Your task to perform on an android device: Go to wifi settings Image 0: 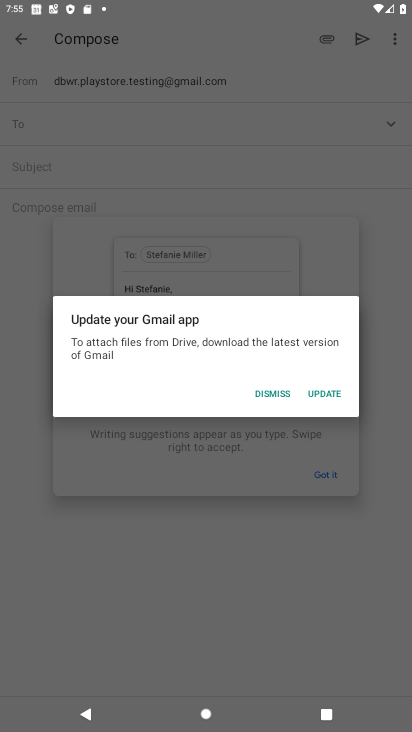
Step 0: press home button
Your task to perform on an android device: Go to wifi settings Image 1: 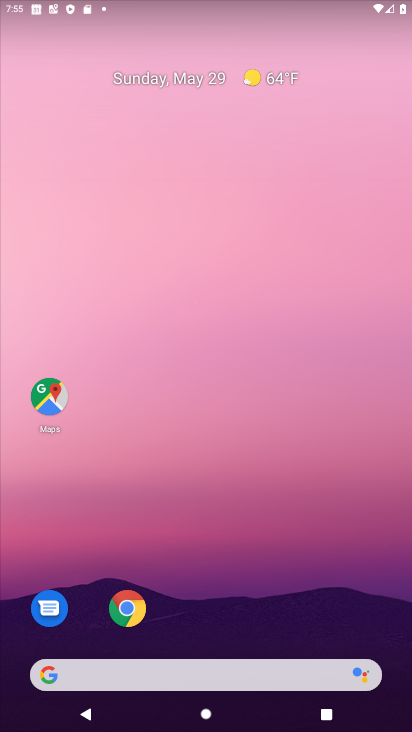
Step 1: drag from (257, 519) to (234, 135)
Your task to perform on an android device: Go to wifi settings Image 2: 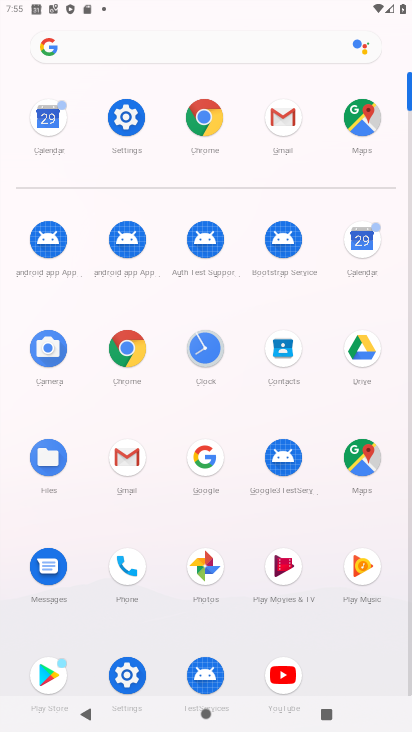
Step 2: click (234, 135)
Your task to perform on an android device: Go to wifi settings Image 3: 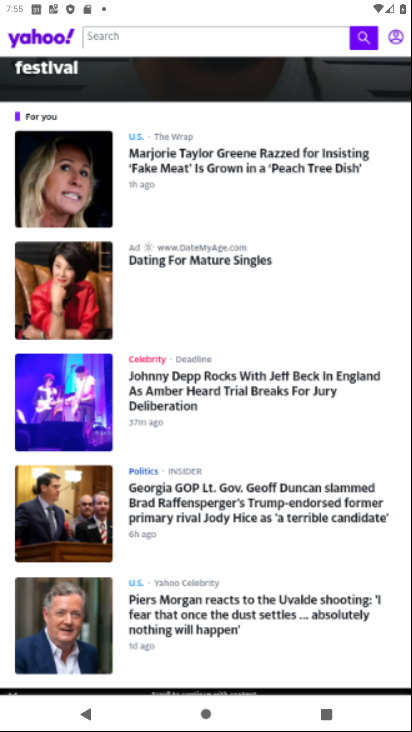
Step 3: click (122, 125)
Your task to perform on an android device: Go to wifi settings Image 4: 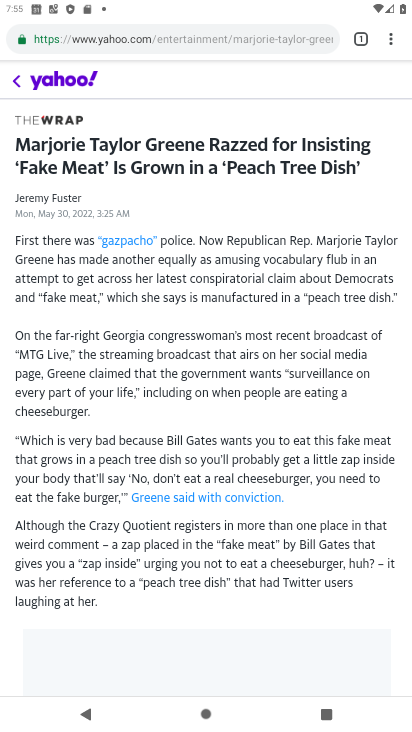
Step 4: press home button
Your task to perform on an android device: Go to wifi settings Image 5: 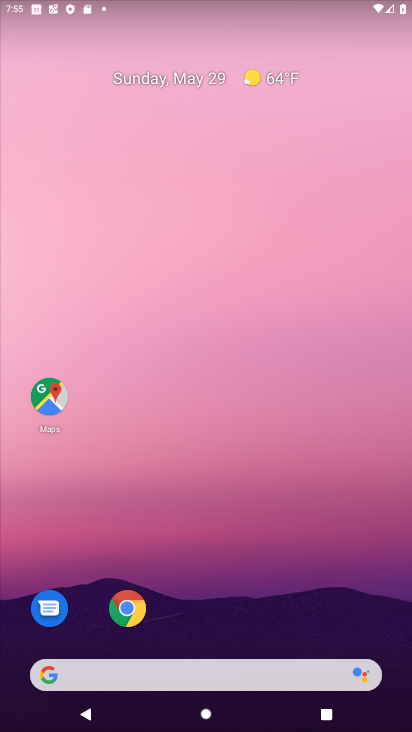
Step 5: drag from (237, 530) to (103, 93)
Your task to perform on an android device: Go to wifi settings Image 6: 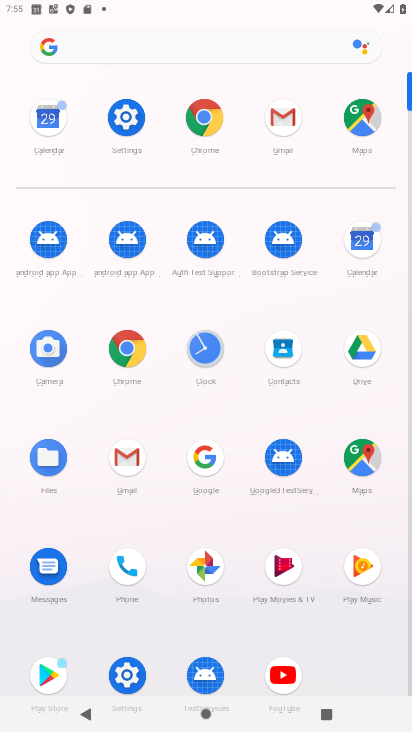
Step 6: click (122, 120)
Your task to perform on an android device: Go to wifi settings Image 7: 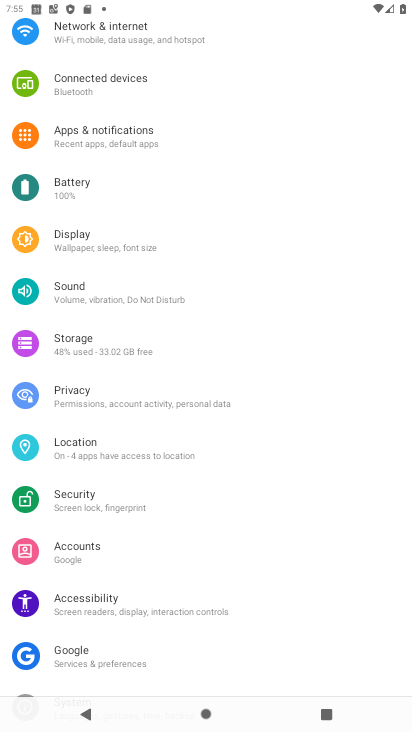
Step 7: drag from (213, 139) to (225, 664)
Your task to perform on an android device: Go to wifi settings Image 8: 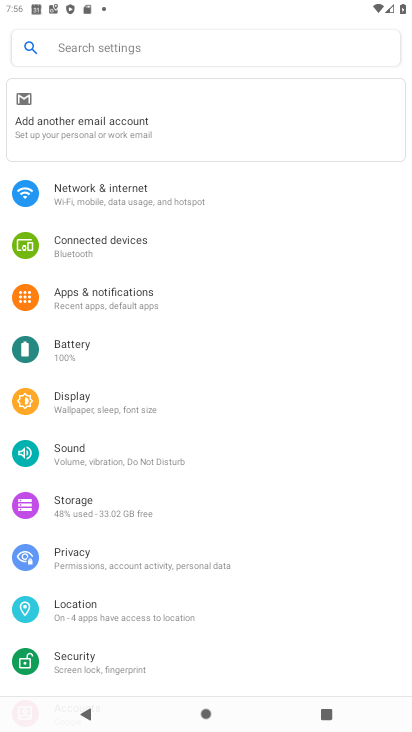
Step 8: click (91, 195)
Your task to perform on an android device: Go to wifi settings Image 9: 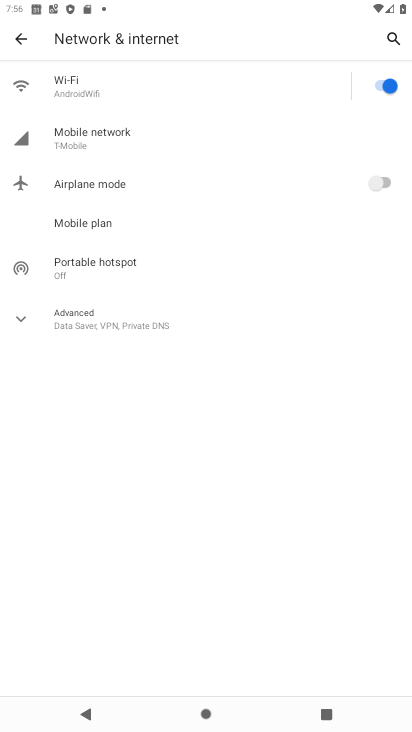
Step 9: click (133, 87)
Your task to perform on an android device: Go to wifi settings Image 10: 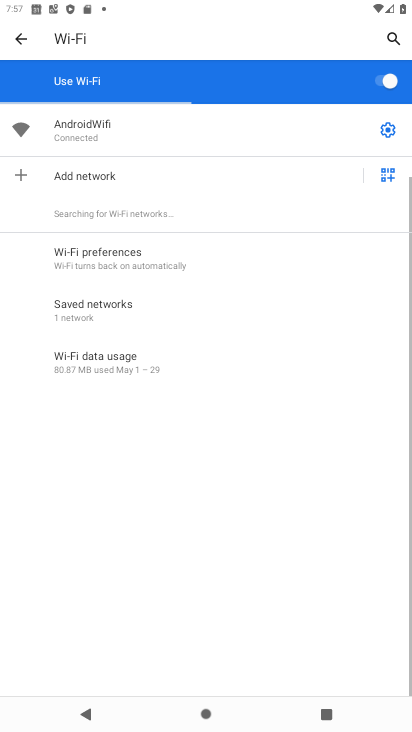
Step 10: task complete